Your task to perform on an android device: check google app version Image 0: 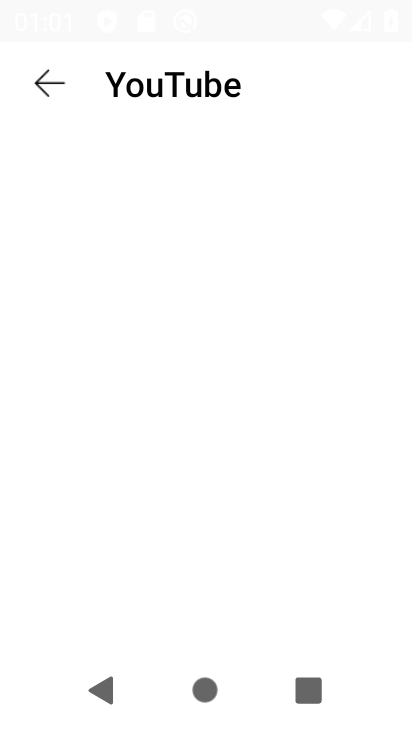
Step 0: click (367, 309)
Your task to perform on an android device: check google app version Image 1: 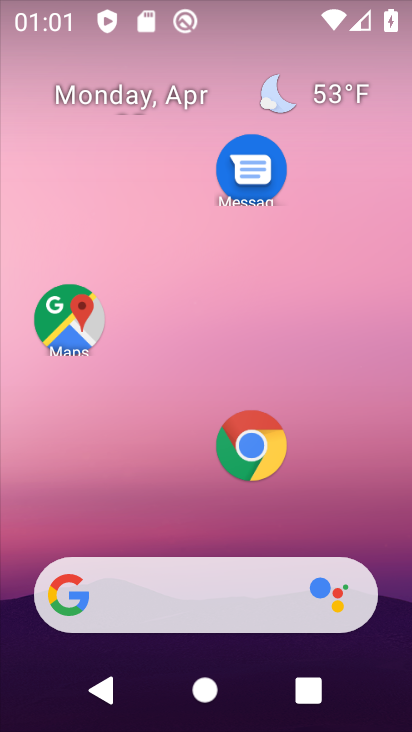
Step 1: click (68, 587)
Your task to perform on an android device: check google app version Image 2: 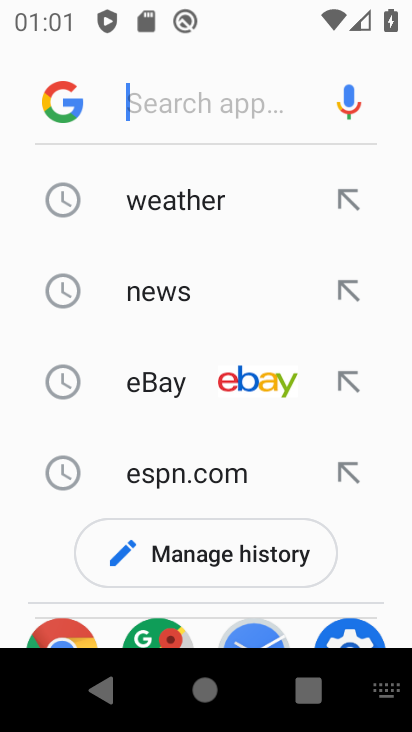
Step 2: click (55, 106)
Your task to perform on an android device: check google app version Image 3: 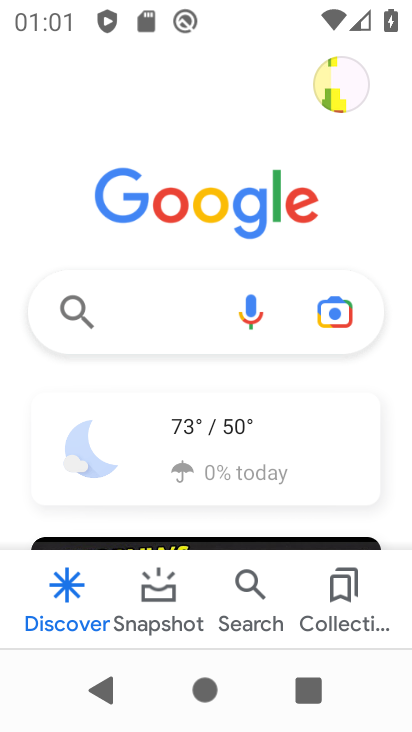
Step 3: drag from (324, 621) to (6, 575)
Your task to perform on an android device: check google app version Image 4: 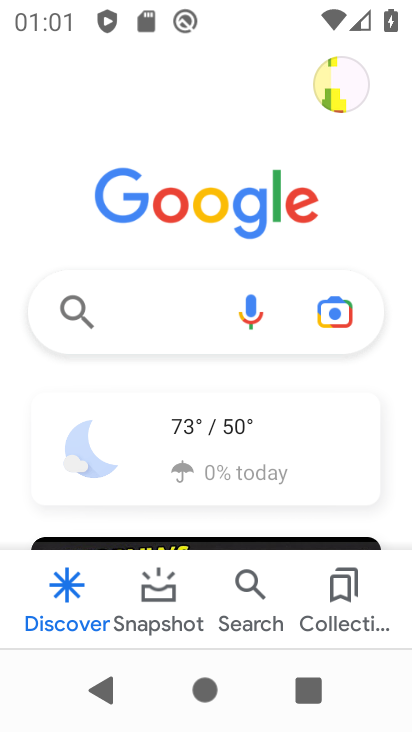
Step 4: drag from (341, 588) to (75, 572)
Your task to perform on an android device: check google app version Image 5: 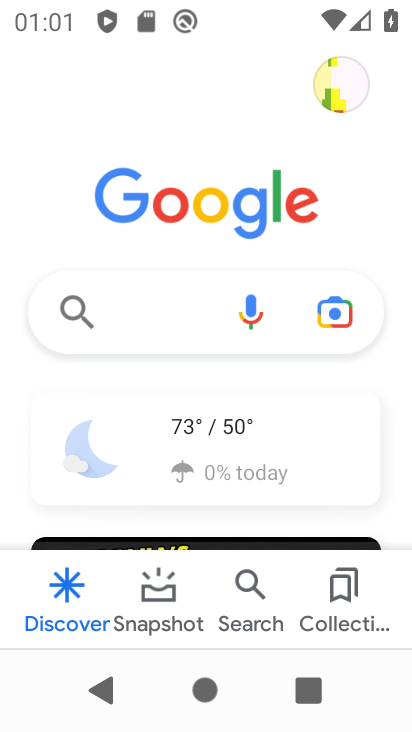
Step 5: click (341, 97)
Your task to perform on an android device: check google app version Image 6: 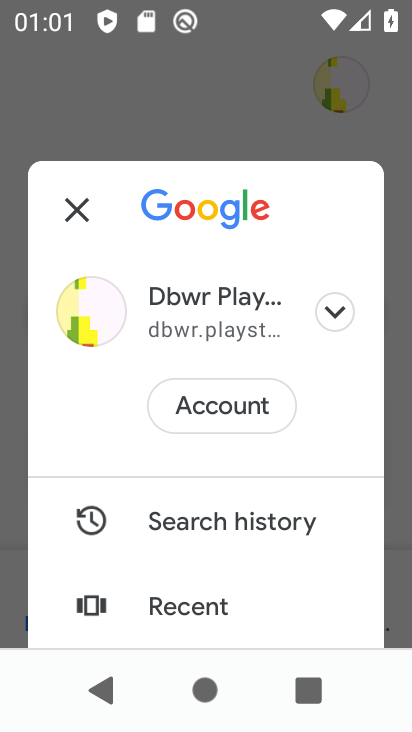
Step 6: drag from (199, 565) to (295, 43)
Your task to perform on an android device: check google app version Image 7: 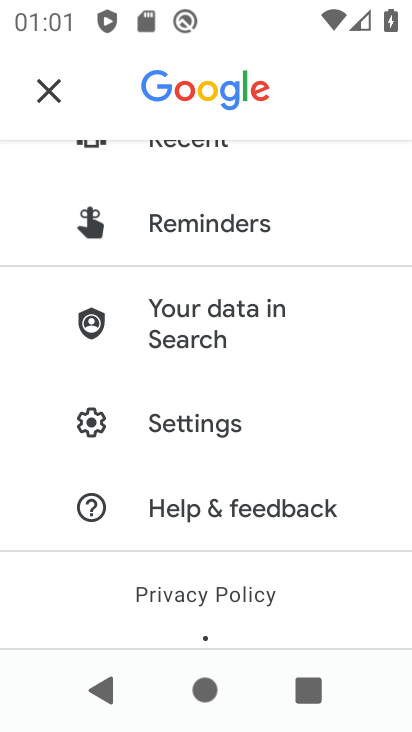
Step 7: click (210, 446)
Your task to perform on an android device: check google app version Image 8: 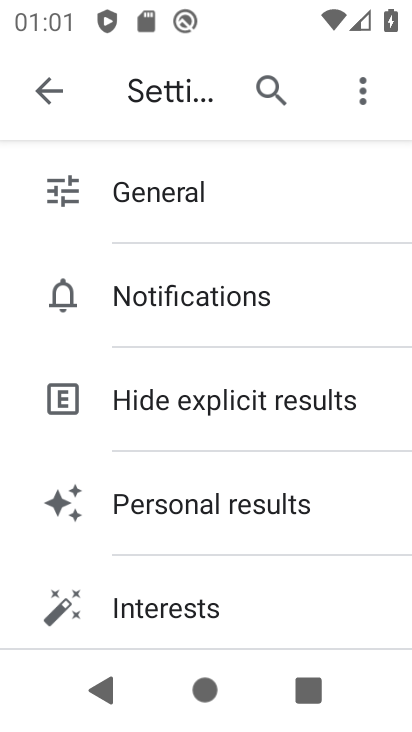
Step 8: drag from (194, 589) to (263, 149)
Your task to perform on an android device: check google app version Image 9: 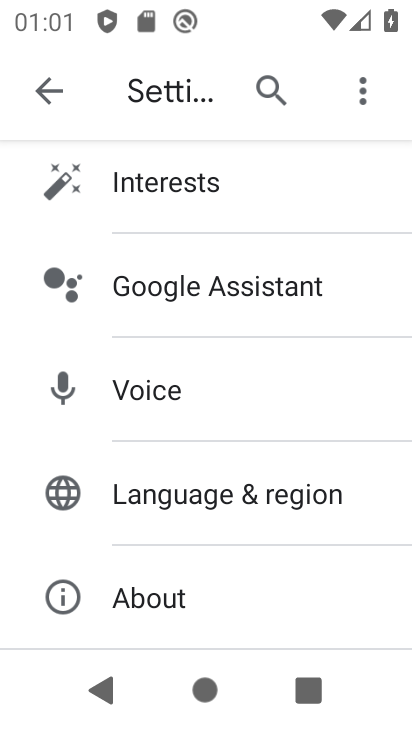
Step 9: click (160, 588)
Your task to perform on an android device: check google app version Image 10: 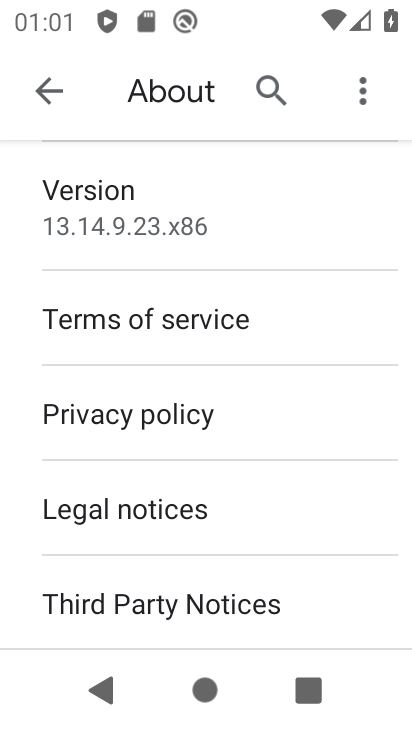
Step 10: task complete